Your task to perform on an android device: find which apps use the phone's location Image 0: 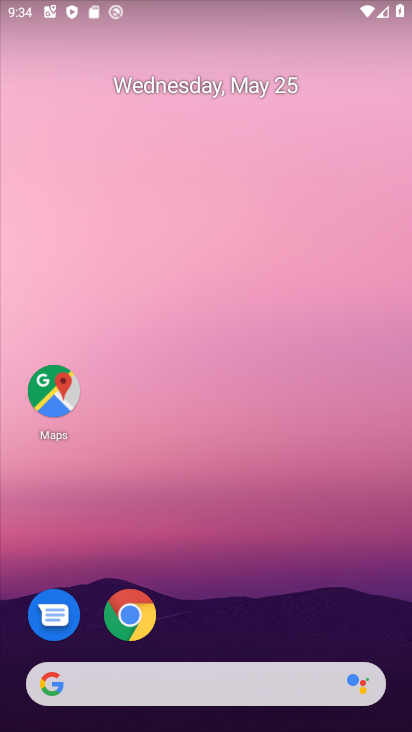
Step 0: task complete